Your task to perform on an android device: Open display settings Image 0: 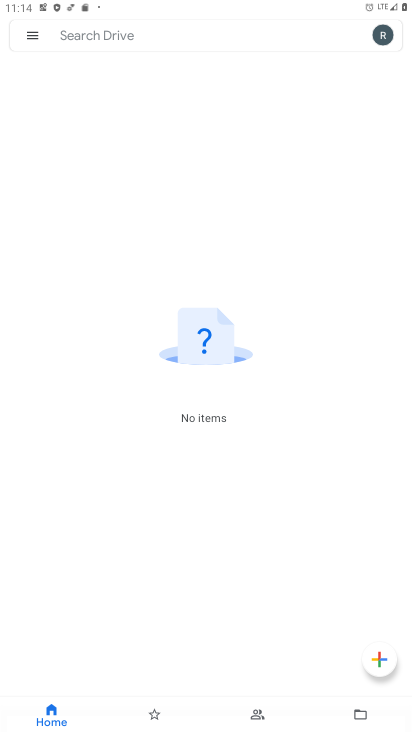
Step 0: drag from (185, 638) to (288, 0)
Your task to perform on an android device: Open display settings Image 1: 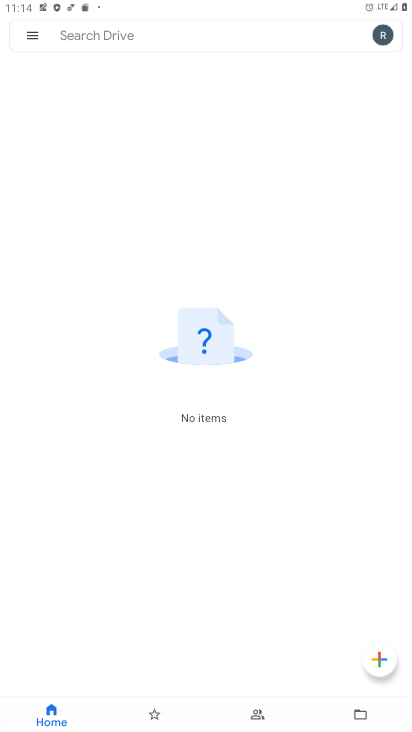
Step 1: press home button
Your task to perform on an android device: Open display settings Image 2: 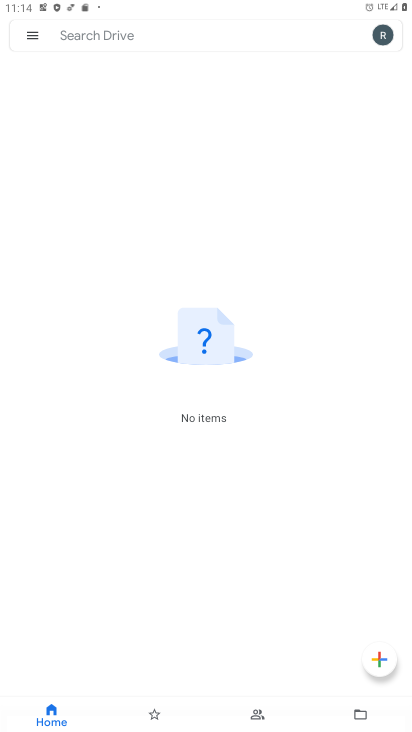
Step 2: click (266, 103)
Your task to perform on an android device: Open display settings Image 3: 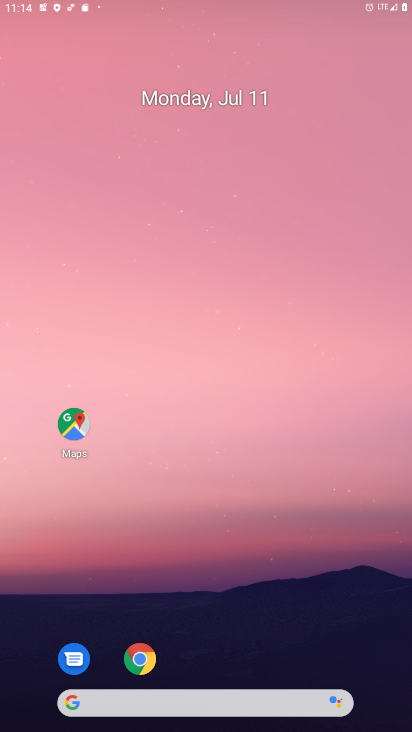
Step 3: drag from (176, 575) to (247, 113)
Your task to perform on an android device: Open display settings Image 4: 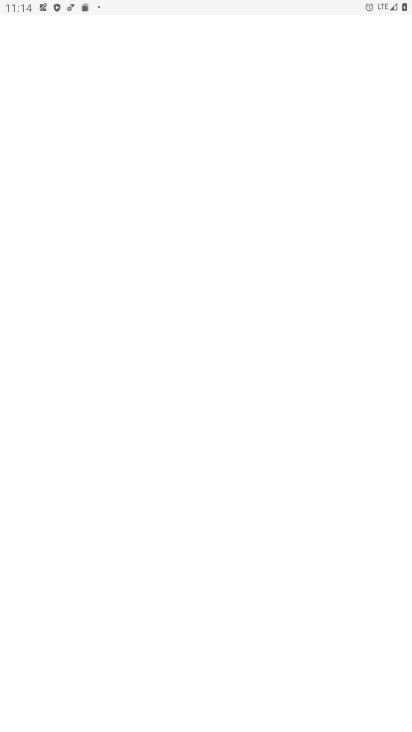
Step 4: press home button
Your task to perform on an android device: Open display settings Image 5: 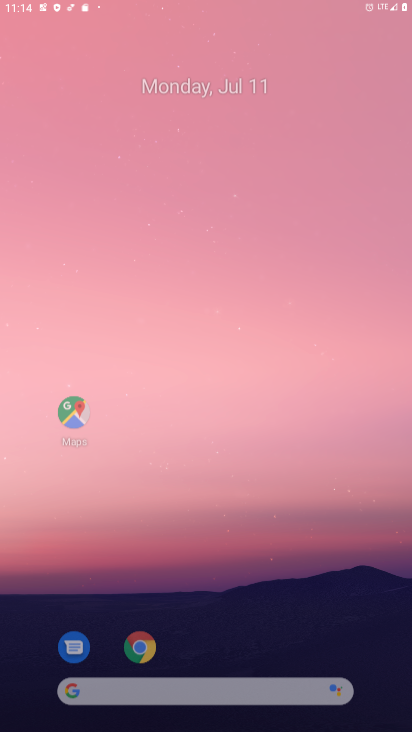
Step 5: press home button
Your task to perform on an android device: Open display settings Image 6: 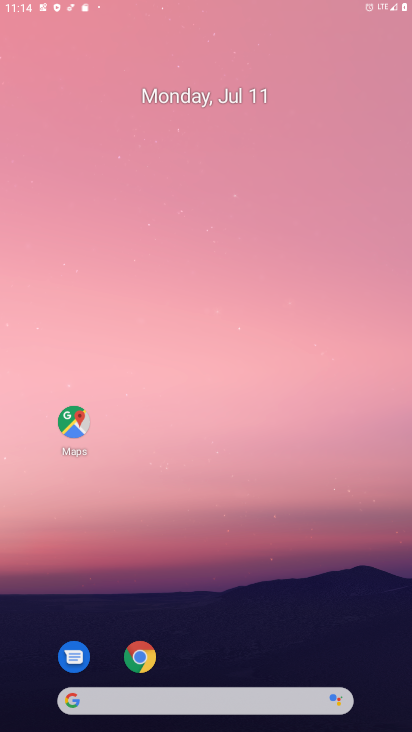
Step 6: click (255, 47)
Your task to perform on an android device: Open display settings Image 7: 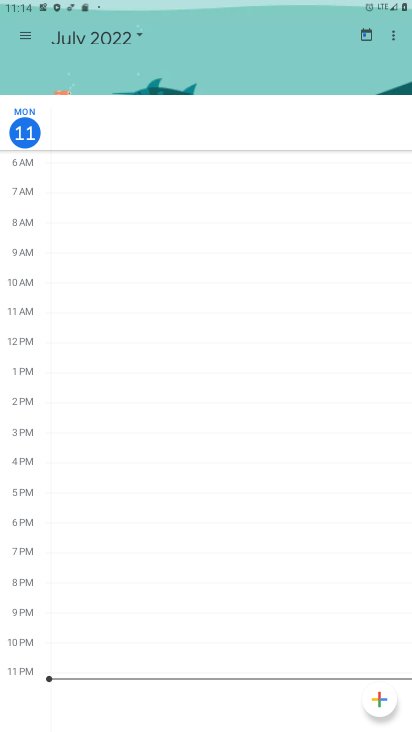
Step 7: press home button
Your task to perform on an android device: Open display settings Image 8: 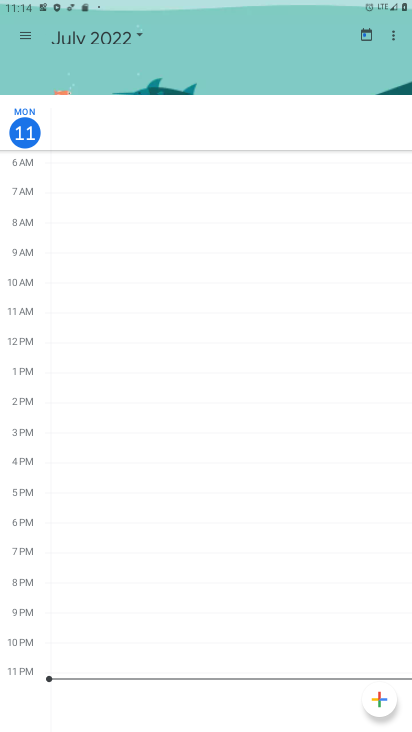
Step 8: press home button
Your task to perform on an android device: Open display settings Image 9: 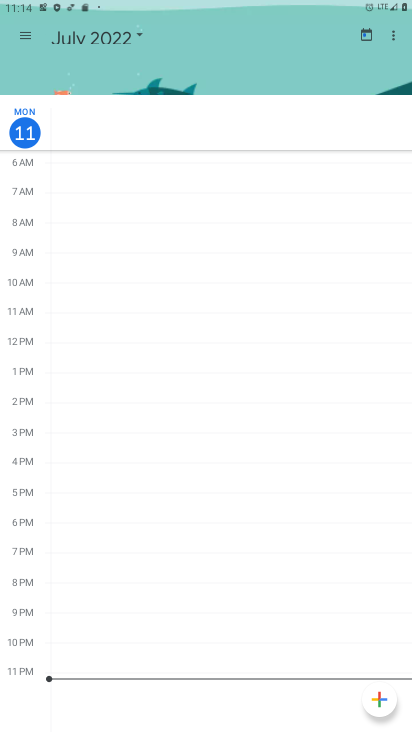
Step 9: drag from (199, 662) to (217, 27)
Your task to perform on an android device: Open display settings Image 10: 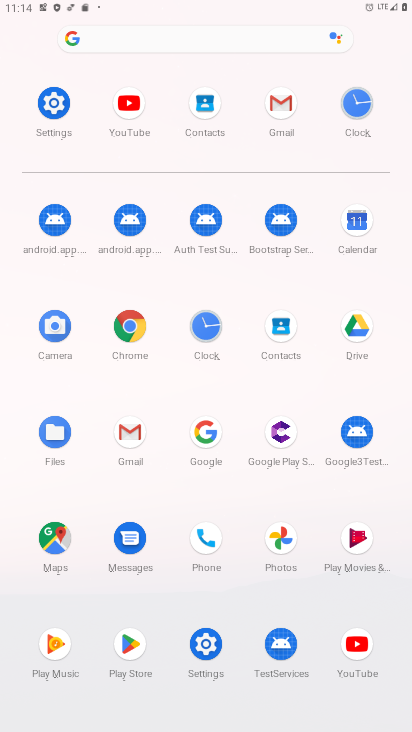
Step 10: click (205, 647)
Your task to perform on an android device: Open display settings Image 11: 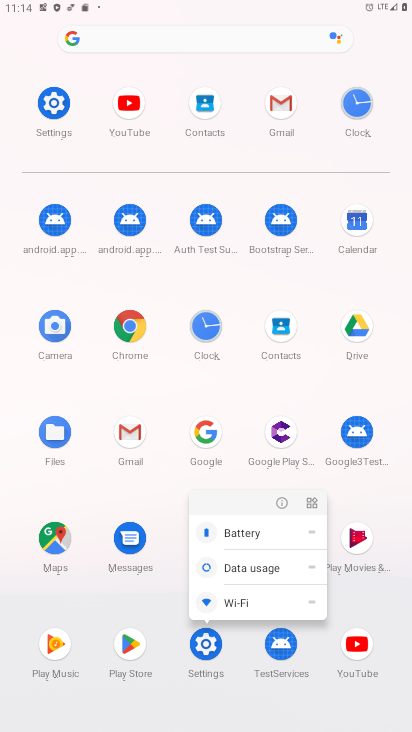
Step 11: click (281, 502)
Your task to perform on an android device: Open display settings Image 12: 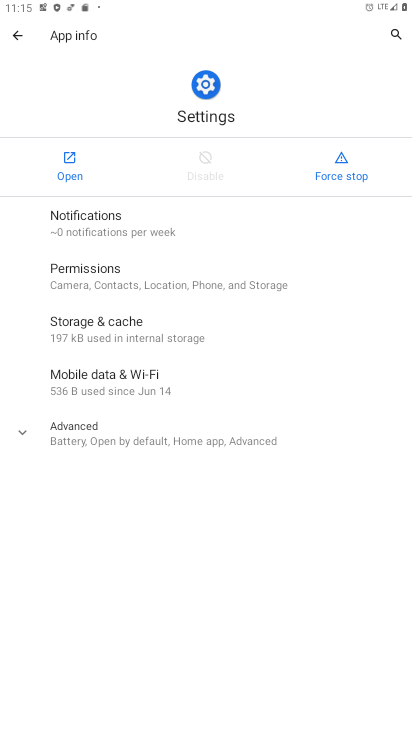
Step 12: click (66, 157)
Your task to perform on an android device: Open display settings Image 13: 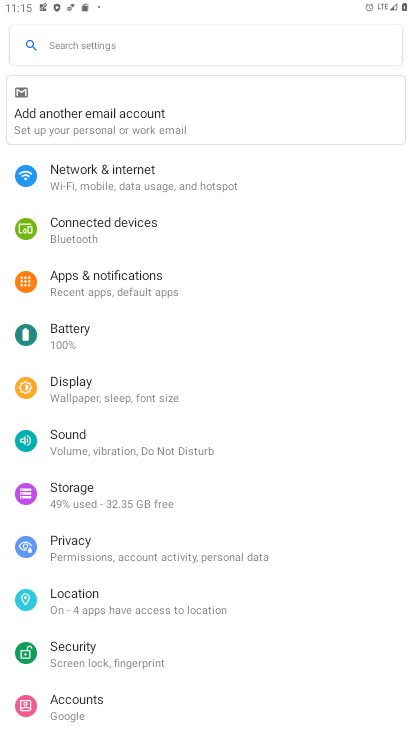
Step 13: click (106, 397)
Your task to perform on an android device: Open display settings Image 14: 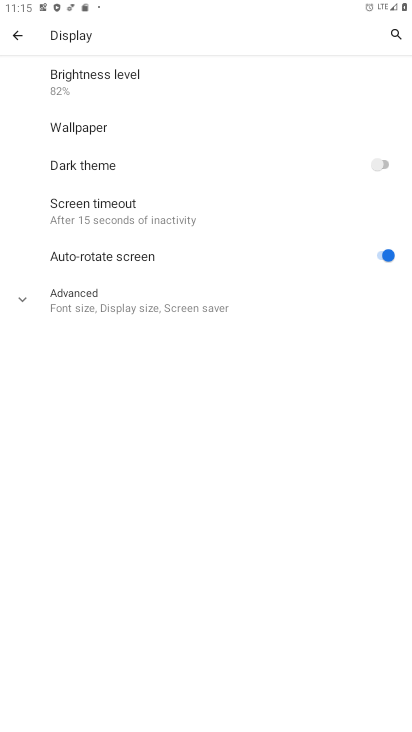
Step 14: click (130, 291)
Your task to perform on an android device: Open display settings Image 15: 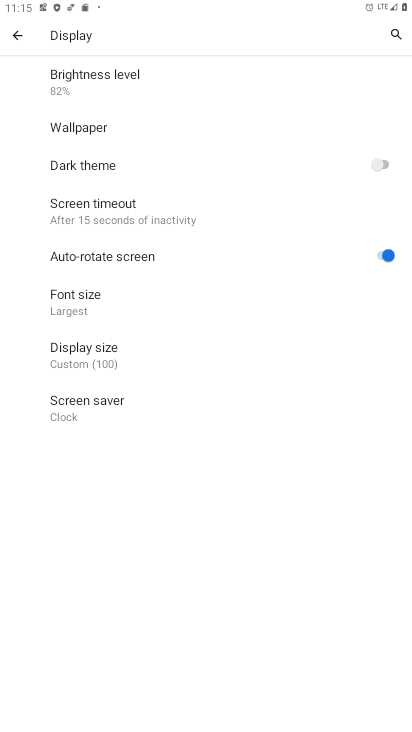
Step 15: task complete